Your task to perform on an android device: Open ESPN.com Image 0: 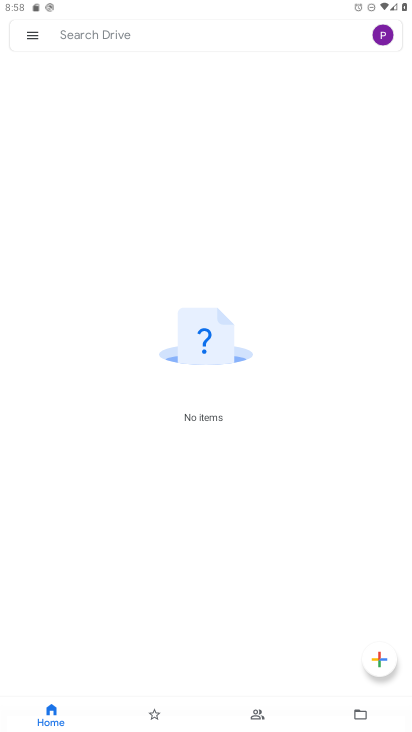
Step 0: press home button
Your task to perform on an android device: Open ESPN.com Image 1: 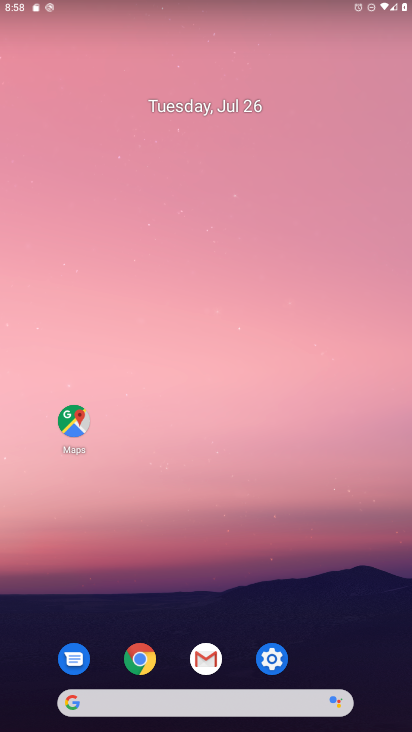
Step 1: click (146, 657)
Your task to perform on an android device: Open ESPN.com Image 2: 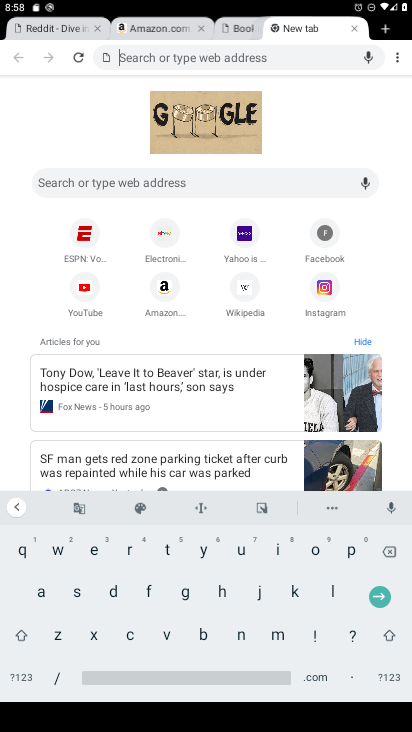
Step 2: click (82, 242)
Your task to perform on an android device: Open ESPN.com Image 3: 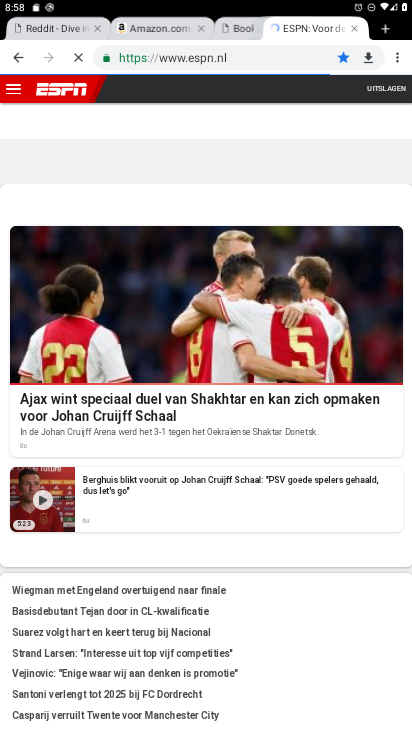
Step 3: task complete